Your task to perform on an android device: Go to location settings Image 0: 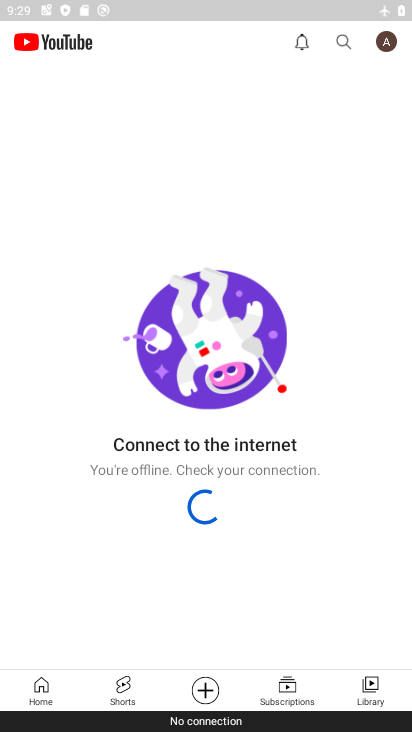
Step 0: press home button
Your task to perform on an android device: Go to location settings Image 1: 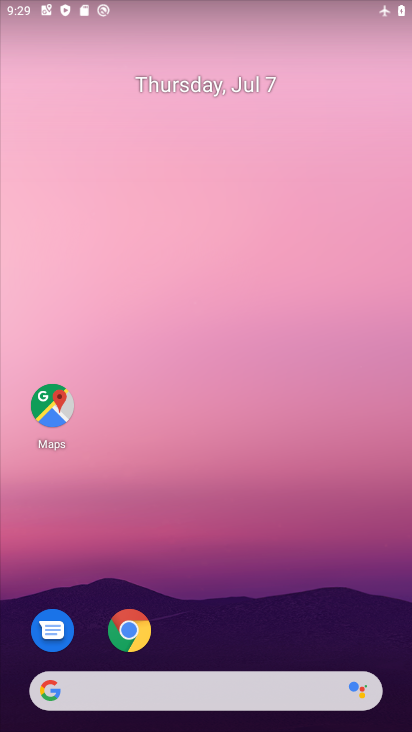
Step 1: drag from (284, 609) to (265, 177)
Your task to perform on an android device: Go to location settings Image 2: 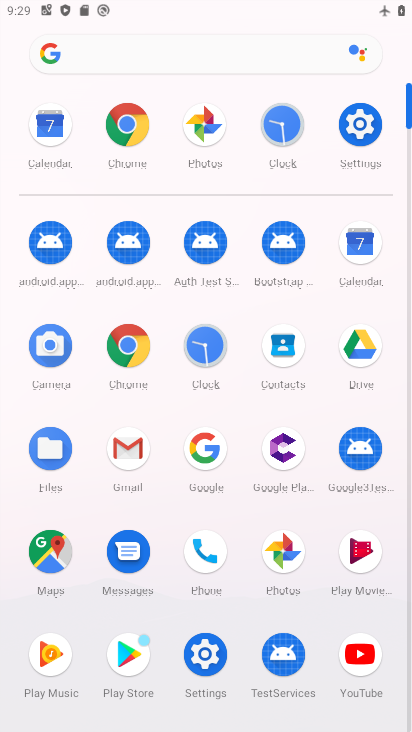
Step 2: click (333, 131)
Your task to perform on an android device: Go to location settings Image 3: 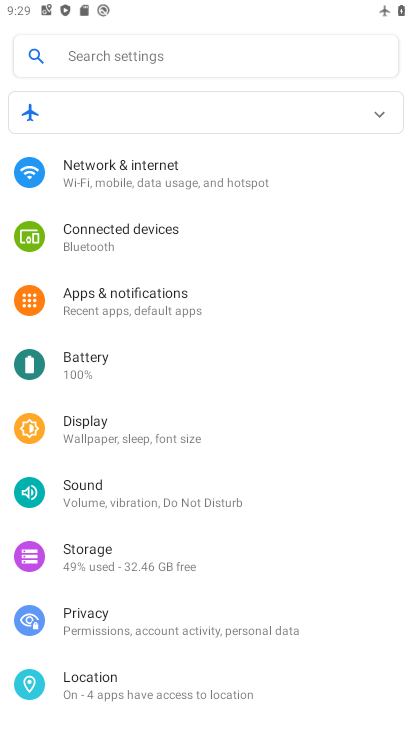
Step 3: click (151, 680)
Your task to perform on an android device: Go to location settings Image 4: 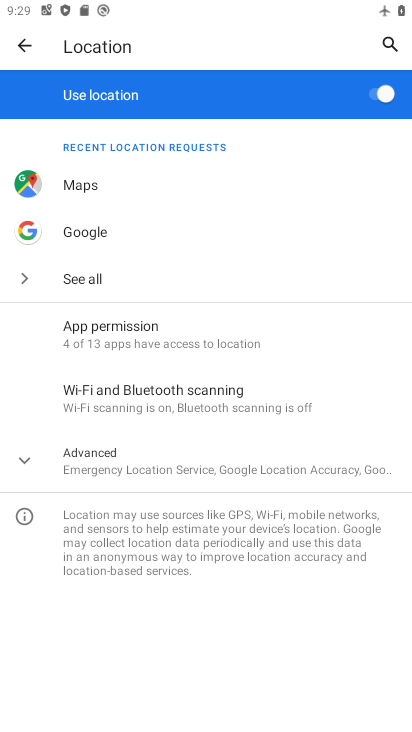
Step 4: task complete